Your task to perform on an android device: Search for Mexican restaurants on Maps Image 0: 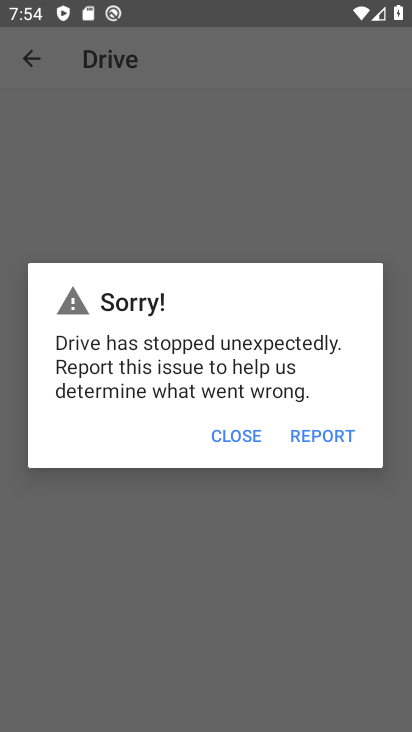
Step 0: press home button
Your task to perform on an android device: Search for Mexican restaurants on Maps Image 1: 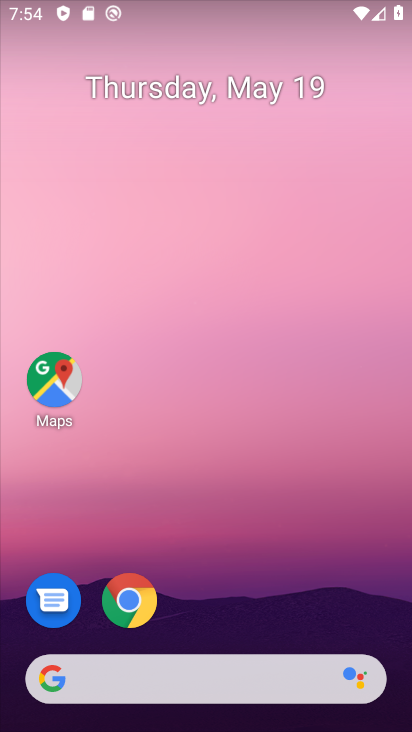
Step 1: click (53, 382)
Your task to perform on an android device: Search for Mexican restaurants on Maps Image 2: 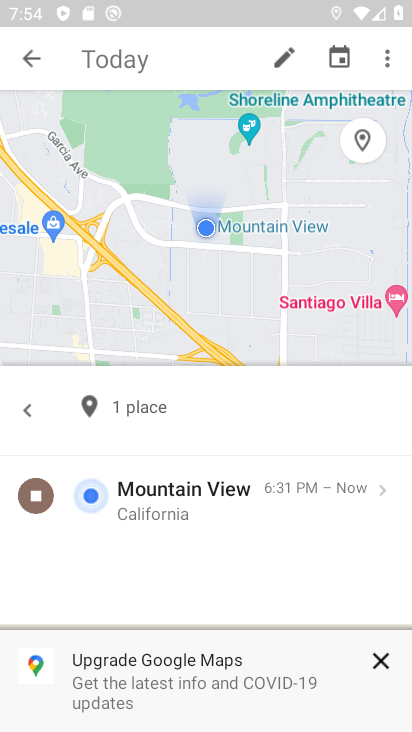
Step 2: click (27, 57)
Your task to perform on an android device: Search for Mexican restaurants on Maps Image 3: 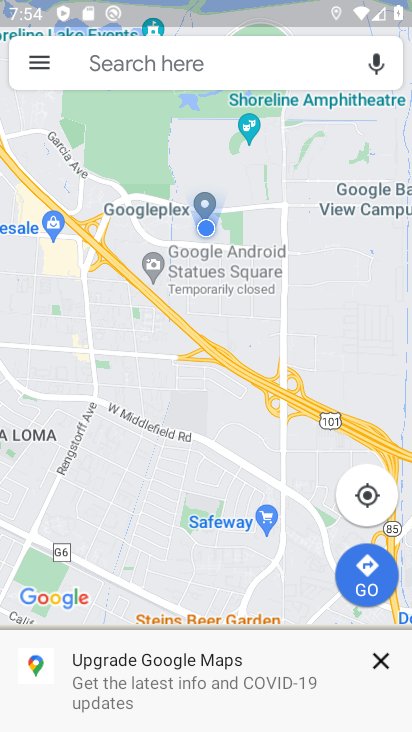
Step 3: click (91, 62)
Your task to perform on an android device: Search for Mexican restaurants on Maps Image 4: 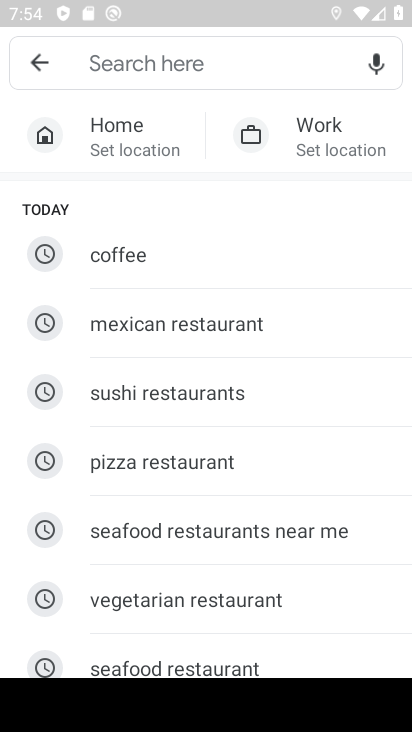
Step 4: type "mexican restaurant "
Your task to perform on an android device: Search for Mexican restaurants on Maps Image 5: 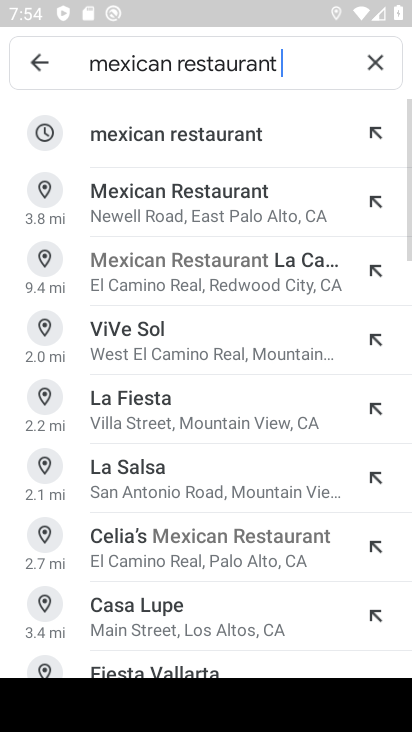
Step 5: click (145, 134)
Your task to perform on an android device: Search for Mexican restaurants on Maps Image 6: 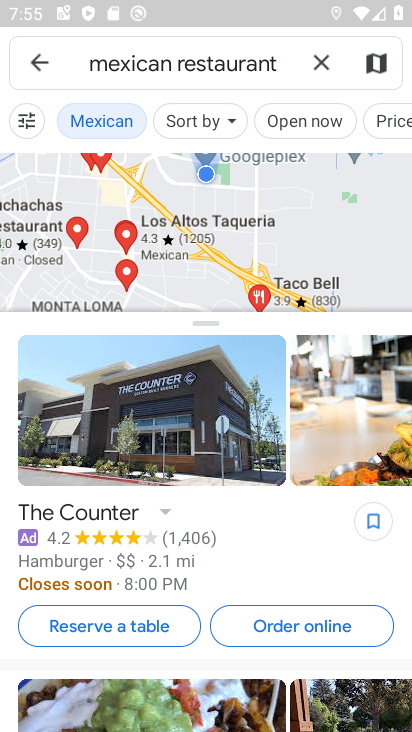
Step 6: task complete